Your task to perform on an android device: Open calendar and show me the second week of next month Image 0: 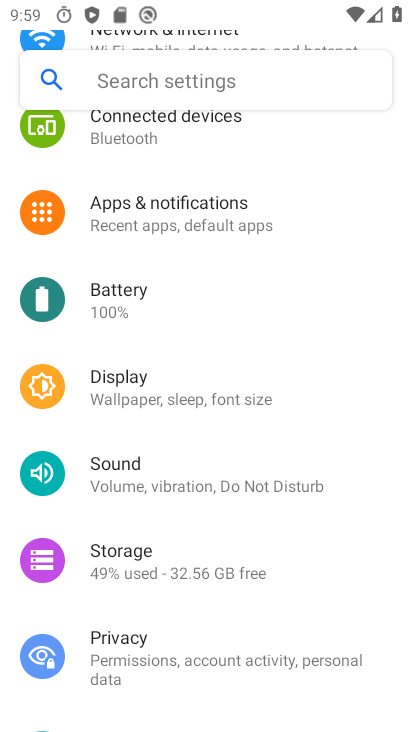
Step 0: press home button
Your task to perform on an android device: Open calendar and show me the second week of next month Image 1: 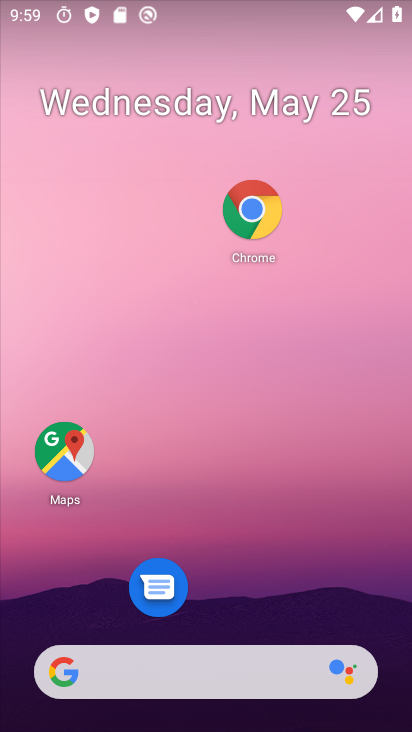
Step 1: drag from (277, 564) to (271, 150)
Your task to perform on an android device: Open calendar and show me the second week of next month Image 2: 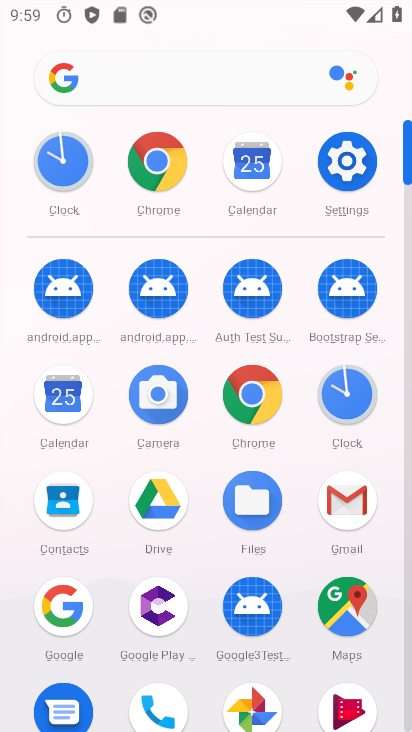
Step 2: click (59, 397)
Your task to perform on an android device: Open calendar and show me the second week of next month Image 3: 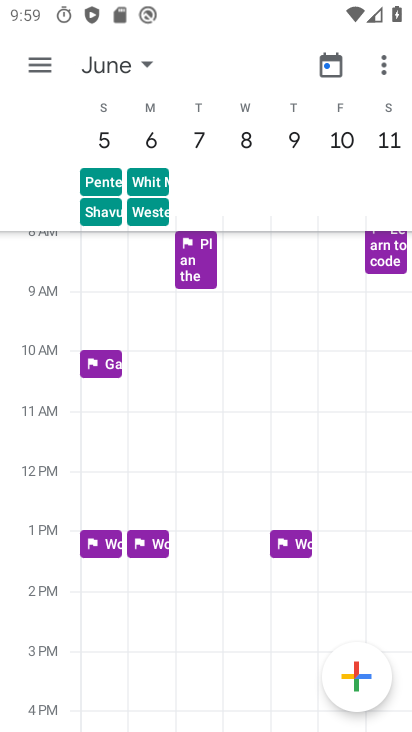
Step 3: task complete